Your task to perform on an android device: Open my contact list Image 0: 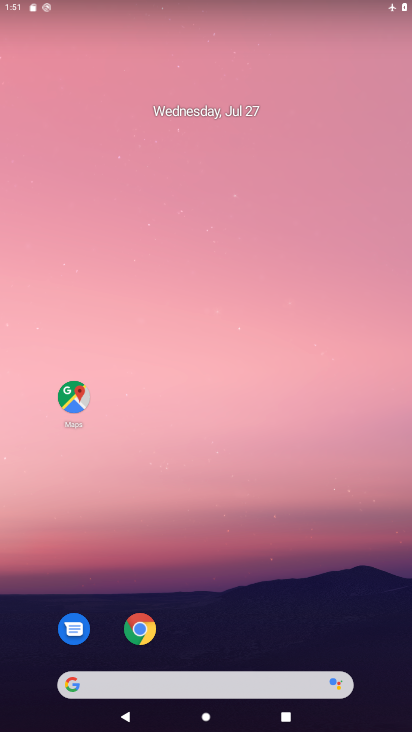
Step 0: drag from (265, 605) to (221, 10)
Your task to perform on an android device: Open my contact list Image 1: 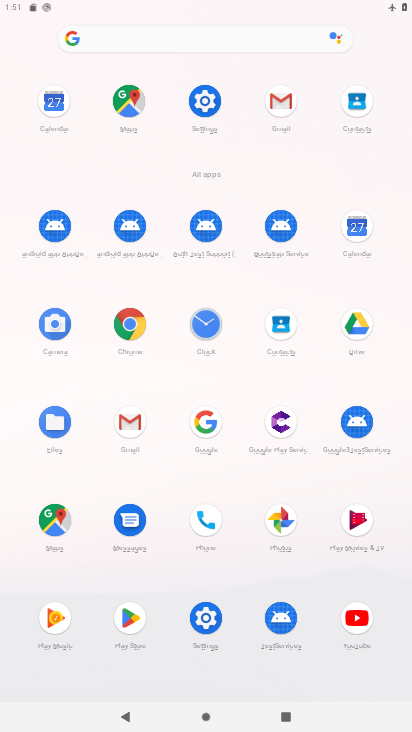
Step 1: click (283, 329)
Your task to perform on an android device: Open my contact list Image 2: 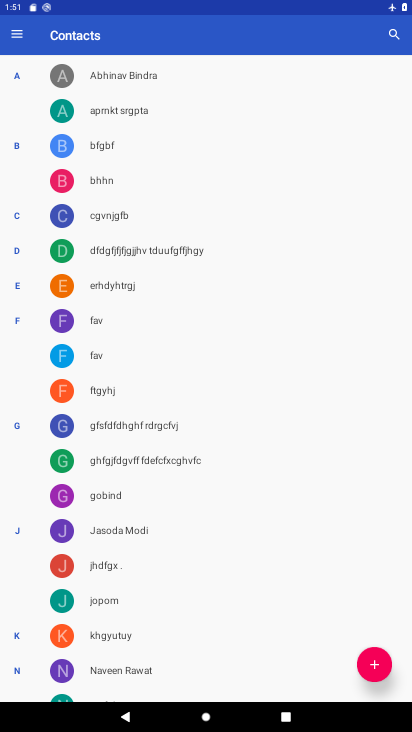
Step 2: task complete